Your task to perform on an android device: Open Google Maps and go to "Timeline" Image 0: 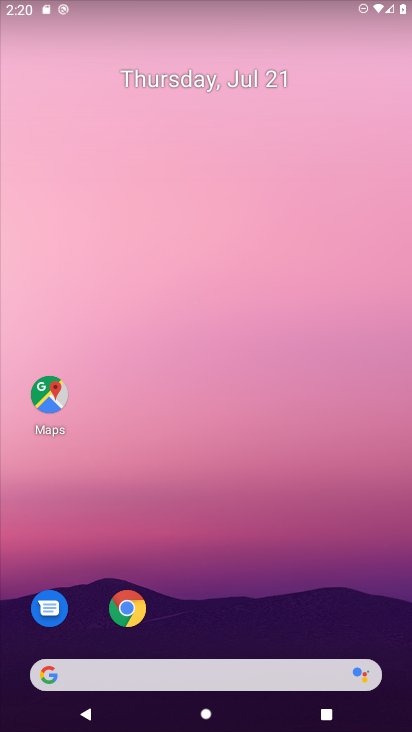
Step 0: click (58, 409)
Your task to perform on an android device: Open Google Maps and go to "Timeline" Image 1: 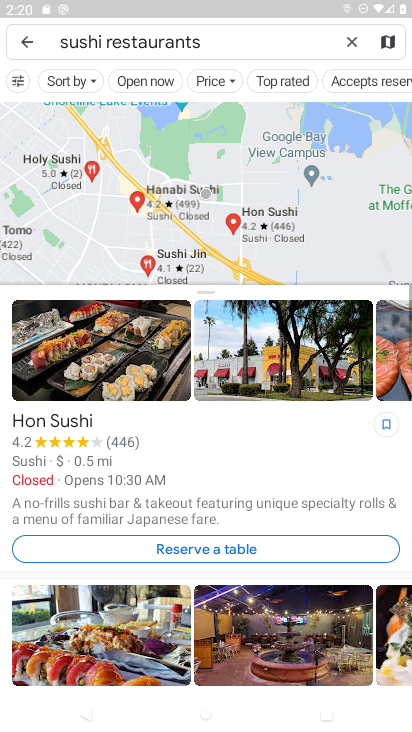
Step 1: click (26, 47)
Your task to perform on an android device: Open Google Maps and go to "Timeline" Image 2: 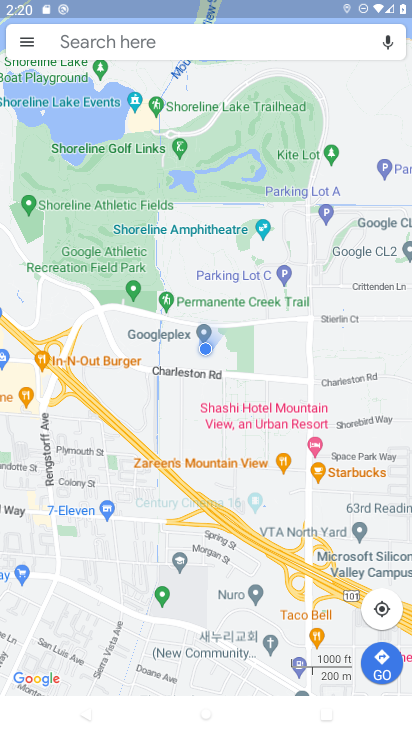
Step 2: click (26, 47)
Your task to perform on an android device: Open Google Maps and go to "Timeline" Image 3: 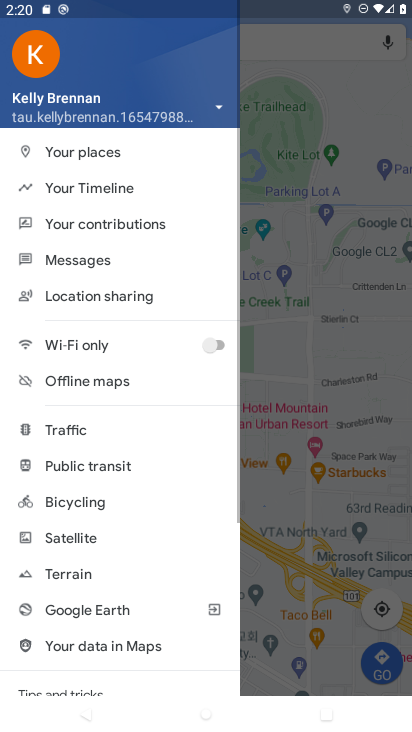
Step 3: click (115, 189)
Your task to perform on an android device: Open Google Maps and go to "Timeline" Image 4: 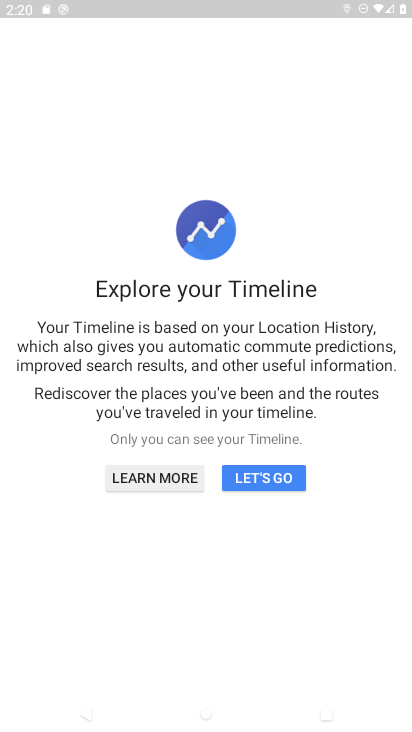
Step 4: click (274, 480)
Your task to perform on an android device: Open Google Maps and go to "Timeline" Image 5: 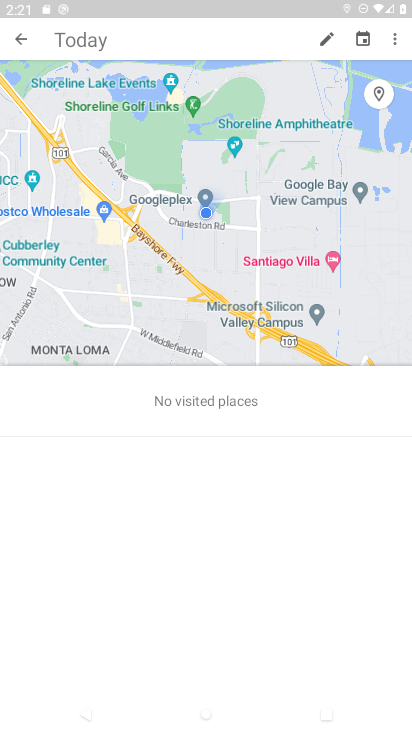
Step 5: click (395, 33)
Your task to perform on an android device: Open Google Maps and go to "Timeline" Image 6: 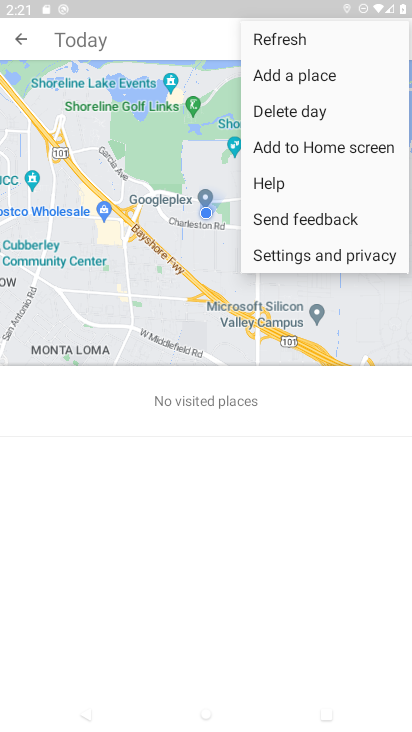
Step 6: click (268, 443)
Your task to perform on an android device: Open Google Maps and go to "Timeline" Image 7: 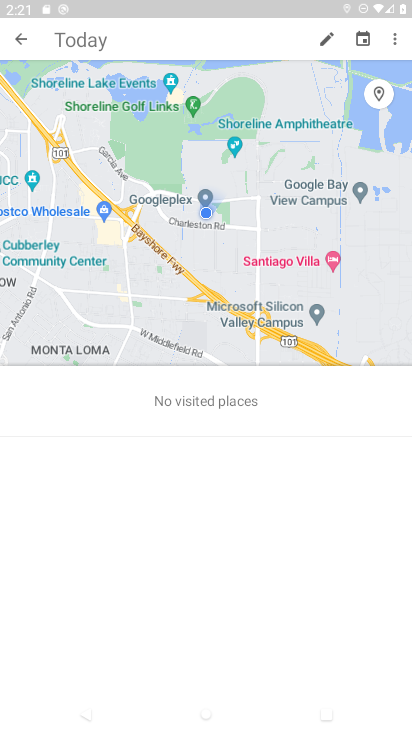
Step 7: task complete